Your task to perform on an android device: change the clock display to show seconds Image 0: 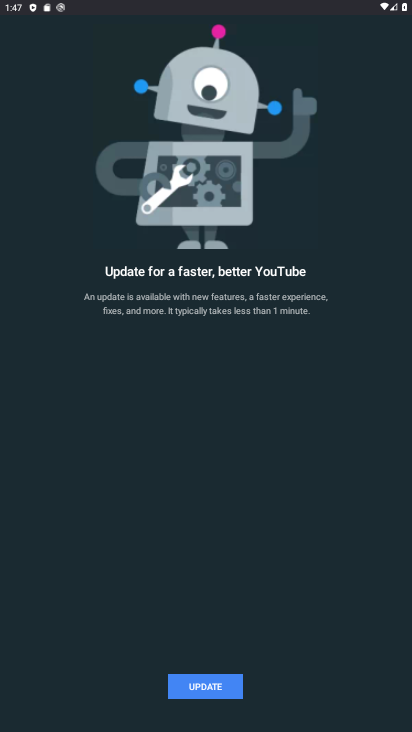
Step 0: press back button
Your task to perform on an android device: change the clock display to show seconds Image 1: 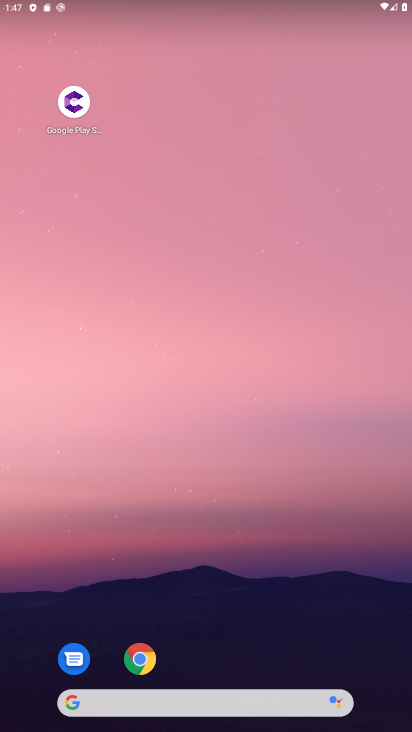
Step 1: drag from (239, 607) to (223, 11)
Your task to perform on an android device: change the clock display to show seconds Image 2: 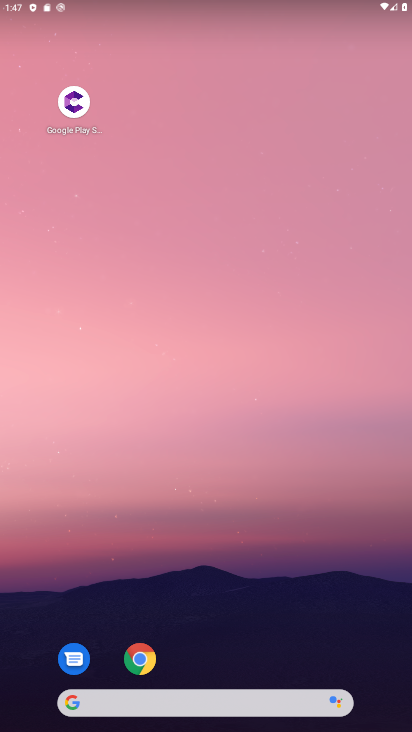
Step 2: drag from (296, 554) to (189, 3)
Your task to perform on an android device: change the clock display to show seconds Image 3: 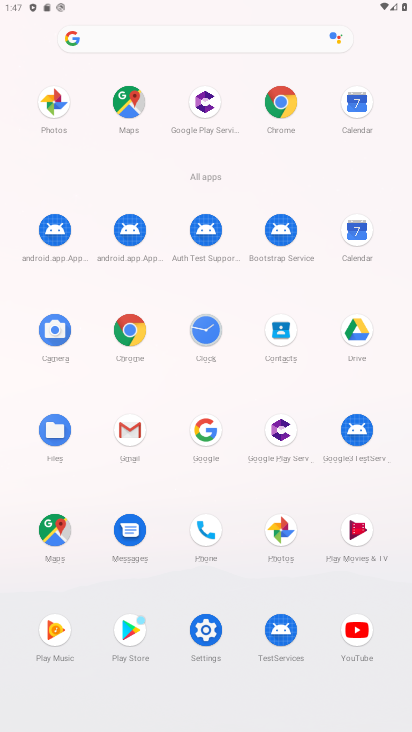
Step 3: click (214, 321)
Your task to perform on an android device: change the clock display to show seconds Image 4: 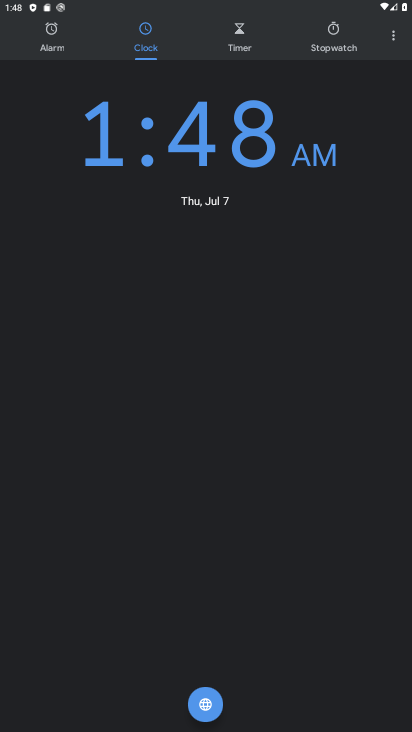
Step 4: click (392, 46)
Your task to perform on an android device: change the clock display to show seconds Image 5: 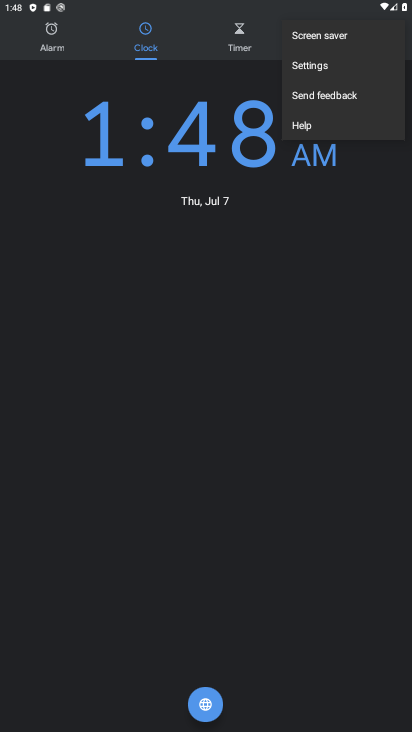
Step 5: click (313, 70)
Your task to perform on an android device: change the clock display to show seconds Image 6: 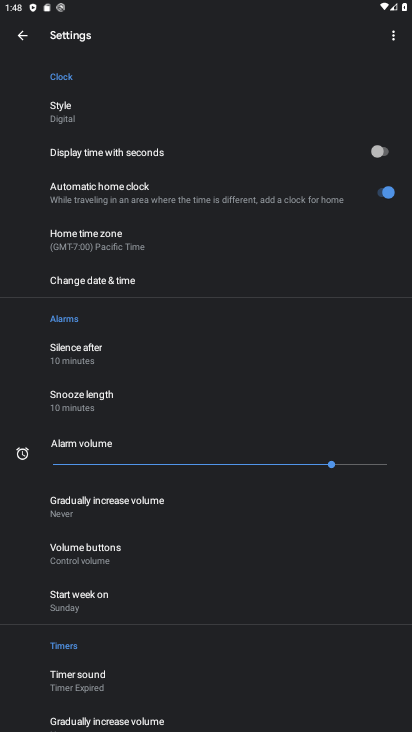
Step 6: click (385, 160)
Your task to perform on an android device: change the clock display to show seconds Image 7: 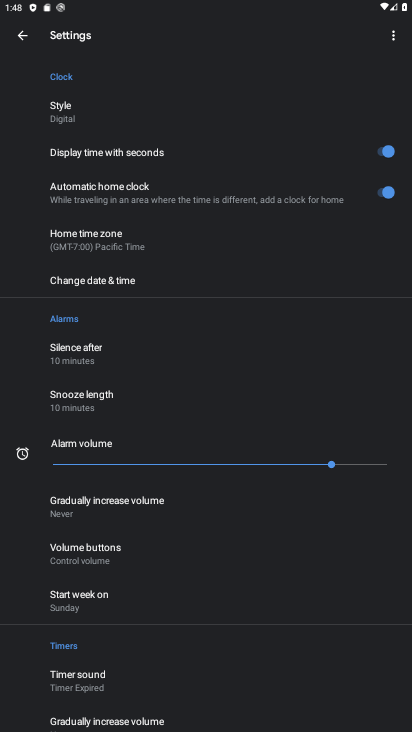
Step 7: task complete